Your task to perform on an android device: Go to Android settings Image 0: 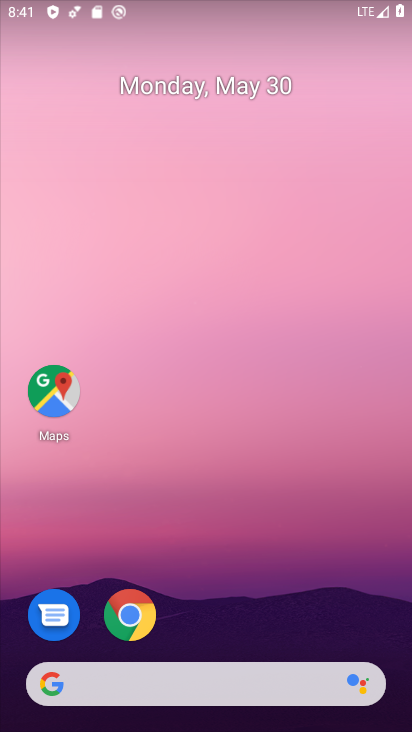
Step 0: drag from (127, 731) to (258, 55)
Your task to perform on an android device: Go to Android settings Image 1: 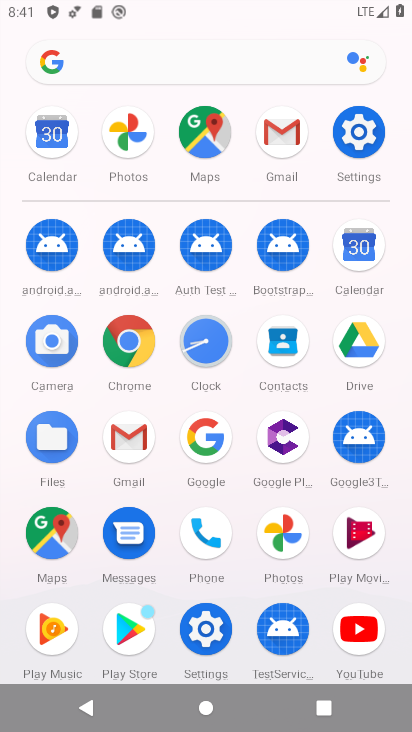
Step 1: click (355, 112)
Your task to perform on an android device: Go to Android settings Image 2: 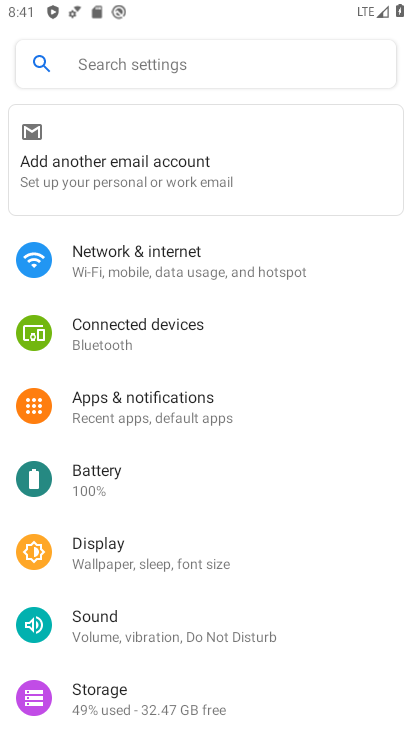
Step 2: task complete